Your task to perform on an android device: remove spam from my inbox in the gmail app Image 0: 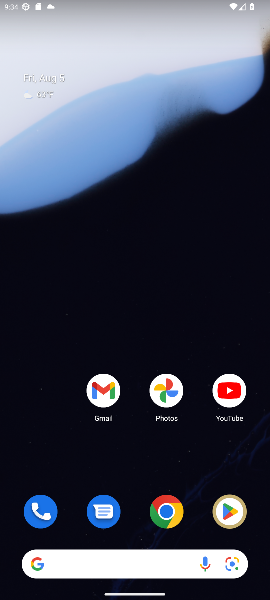
Step 0: drag from (113, 559) to (129, 190)
Your task to perform on an android device: remove spam from my inbox in the gmail app Image 1: 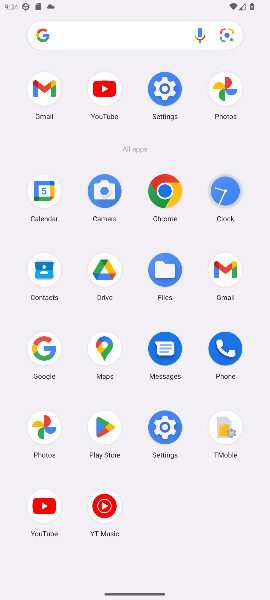
Step 1: click (44, 90)
Your task to perform on an android device: remove spam from my inbox in the gmail app Image 2: 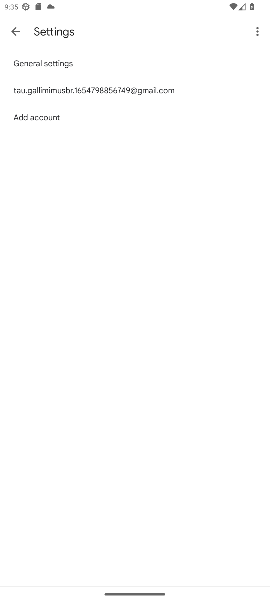
Step 2: press back button
Your task to perform on an android device: remove spam from my inbox in the gmail app Image 3: 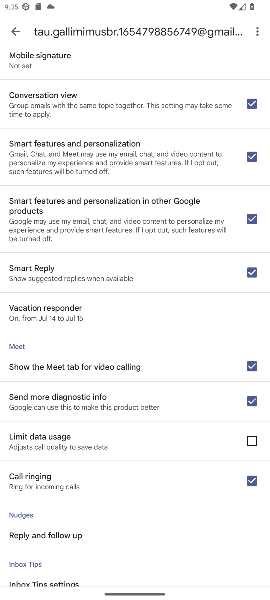
Step 3: press back button
Your task to perform on an android device: remove spam from my inbox in the gmail app Image 4: 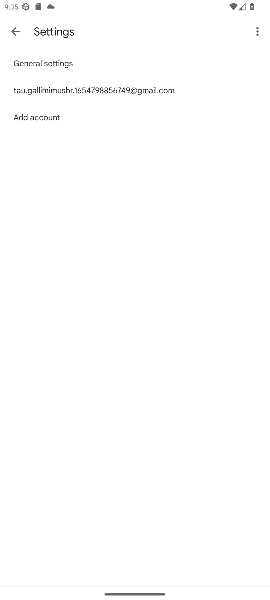
Step 4: press back button
Your task to perform on an android device: remove spam from my inbox in the gmail app Image 5: 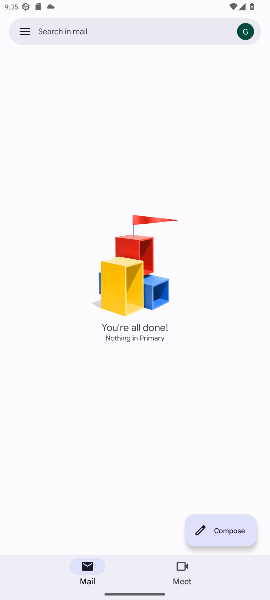
Step 5: click (22, 28)
Your task to perform on an android device: remove spam from my inbox in the gmail app Image 6: 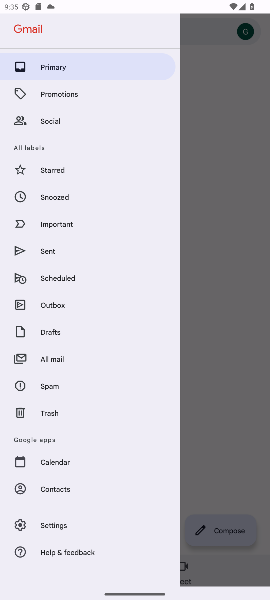
Step 6: click (48, 386)
Your task to perform on an android device: remove spam from my inbox in the gmail app Image 7: 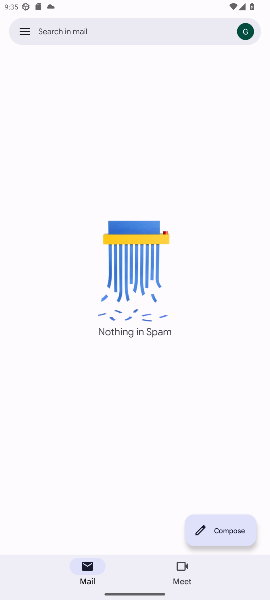
Step 7: task complete